Your task to perform on an android device: Go to accessibility settings Image 0: 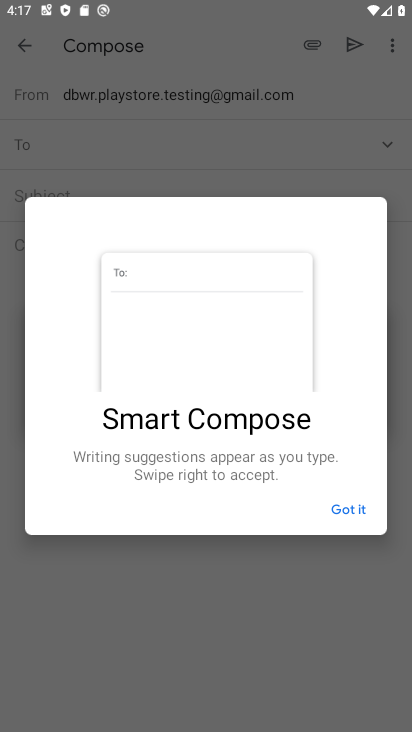
Step 0: press home button
Your task to perform on an android device: Go to accessibility settings Image 1: 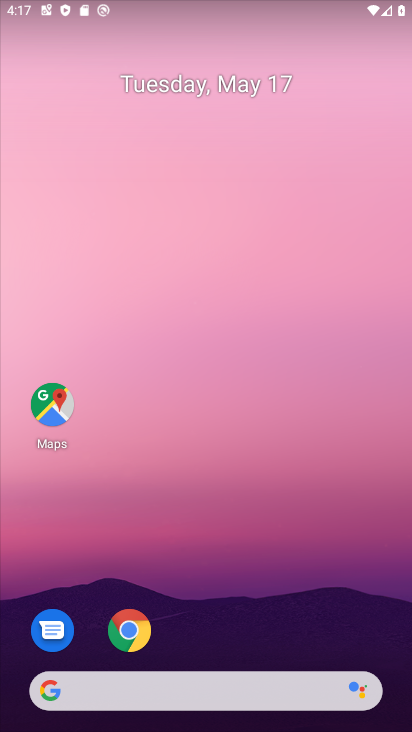
Step 1: drag from (225, 701) to (232, 166)
Your task to perform on an android device: Go to accessibility settings Image 2: 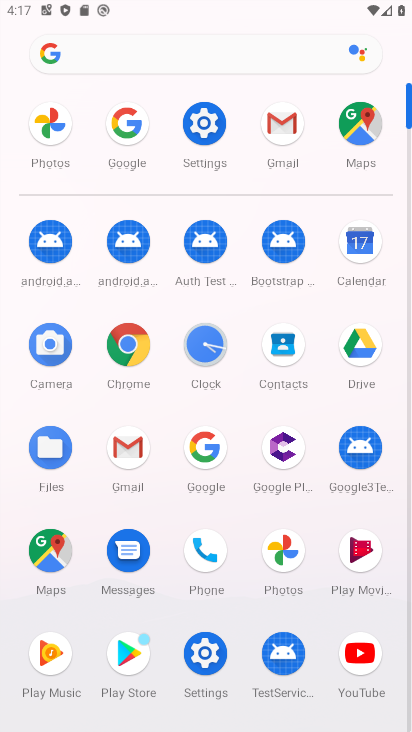
Step 2: click (198, 118)
Your task to perform on an android device: Go to accessibility settings Image 3: 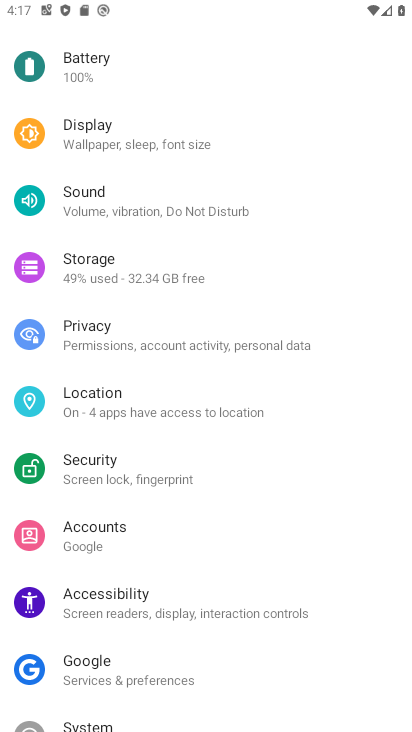
Step 3: drag from (117, 655) to (135, 300)
Your task to perform on an android device: Go to accessibility settings Image 4: 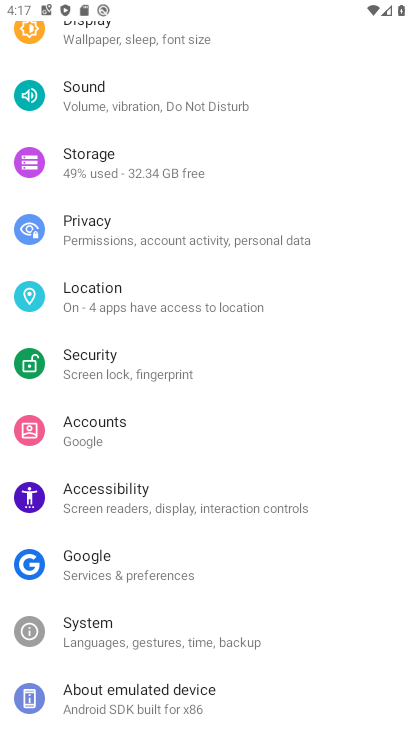
Step 4: drag from (164, 662) to (168, 281)
Your task to perform on an android device: Go to accessibility settings Image 5: 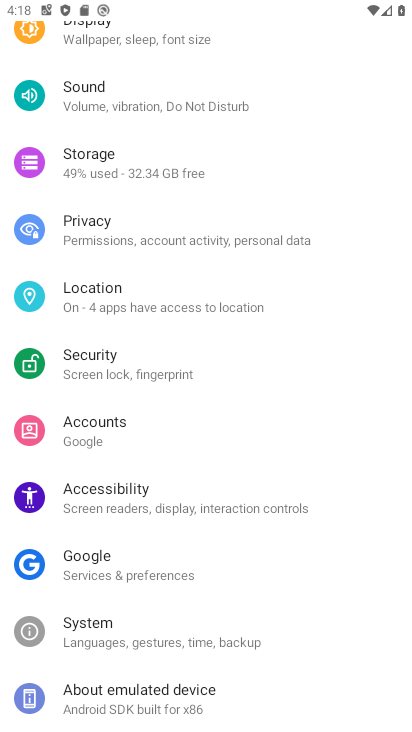
Step 5: click (89, 490)
Your task to perform on an android device: Go to accessibility settings Image 6: 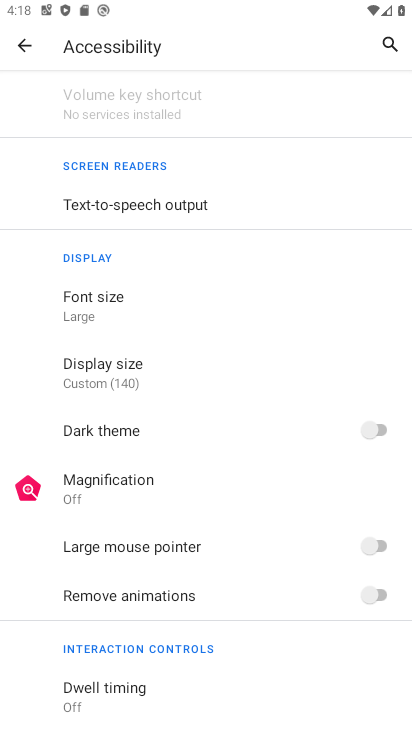
Step 6: task complete